Your task to perform on an android device: change the upload size in google photos Image 0: 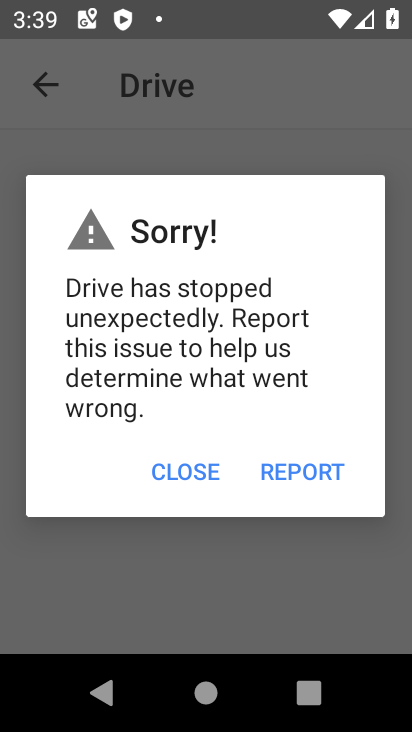
Step 0: press home button
Your task to perform on an android device: change the upload size in google photos Image 1: 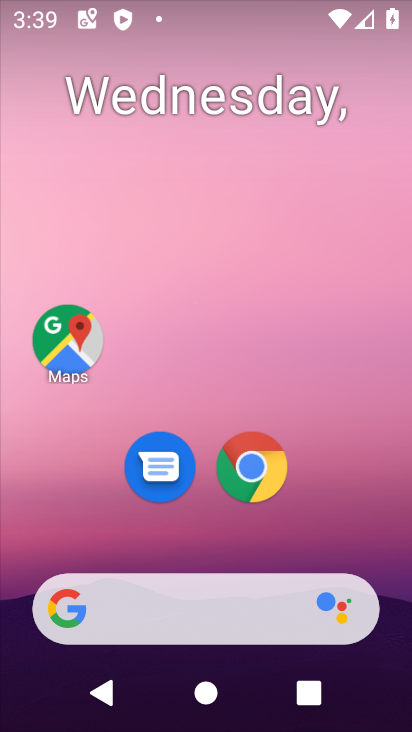
Step 1: drag from (393, 598) to (299, 115)
Your task to perform on an android device: change the upload size in google photos Image 2: 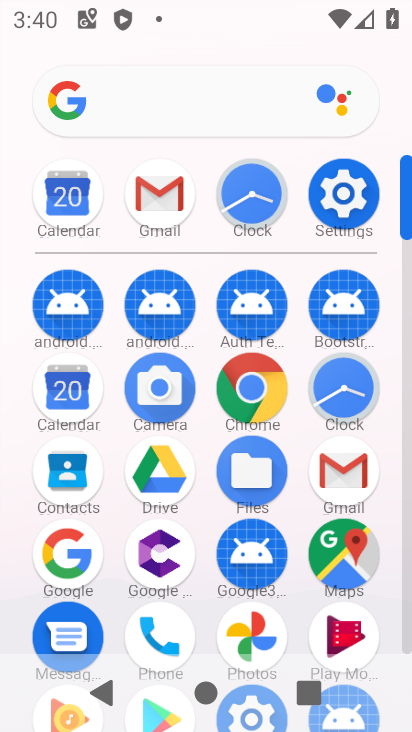
Step 2: click (405, 633)
Your task to perform on an android device: change the upload size in google photos Image 3: 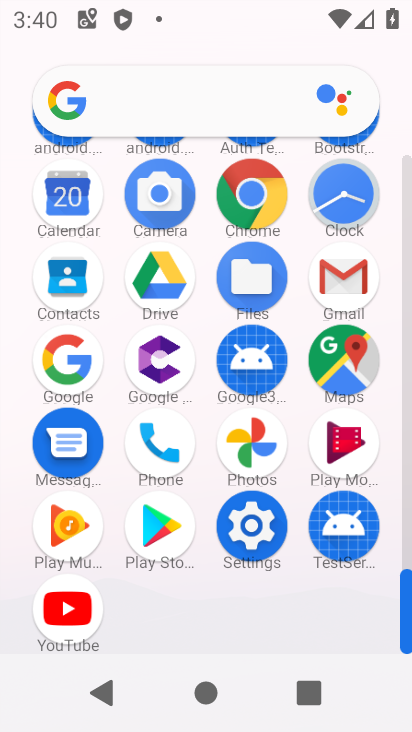
Step 3: click (252, 443)
Your task to perform on an android device: change the upload size in google photos Image 4: 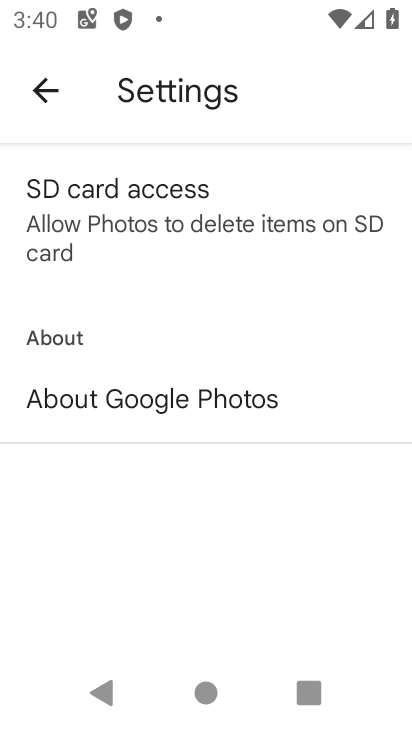
Step 4: press back button
Your task to perform on an android device: change the upload size in google photos Image 5: 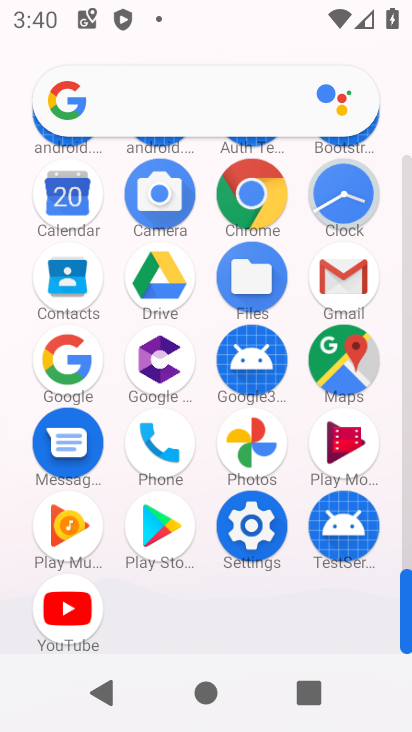
Step 5: click (249, 442)
Your task to perform on an android device: change the upload size in google photos Image 6: 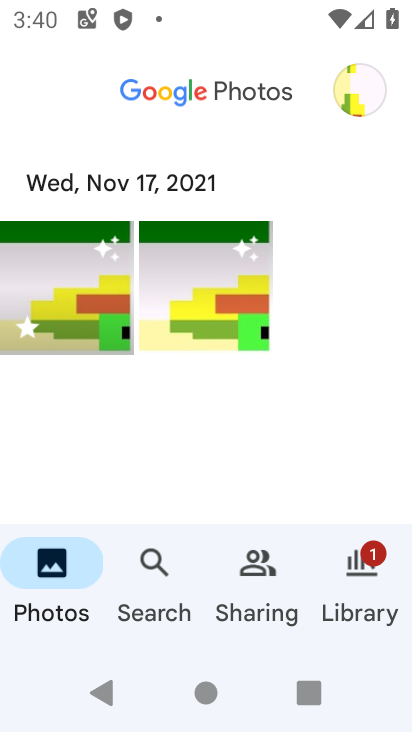
Step 6: click (360, 99)
Your task to perform on an android device: change the upload size in google photos Image 7: 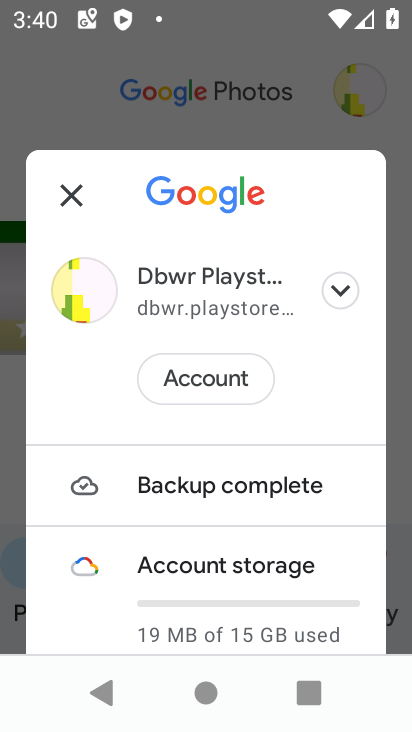
Step 7: drag from (219, 496) to (243, 237)
Your task to perform on an android device: change the upload size in google photos Image 8: 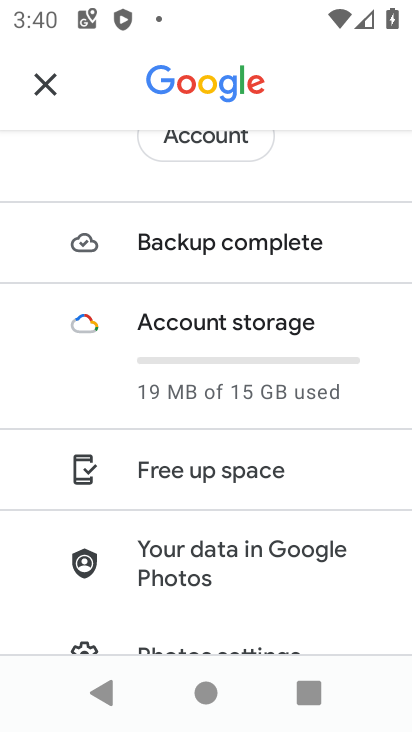
Step 8: drag from (216, 565) to (259, 220)
Your task to perform on an android device: change the upload size in google photos Image 9: 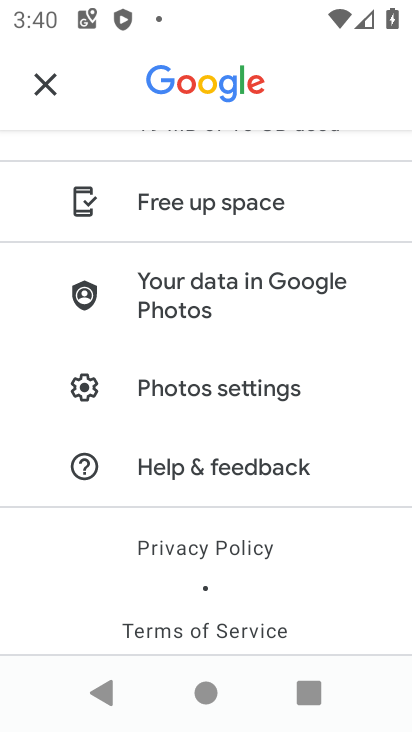
Step 9: click (186, 396)
Your task to perform on an android device: change the upload size in google photos Image 10: 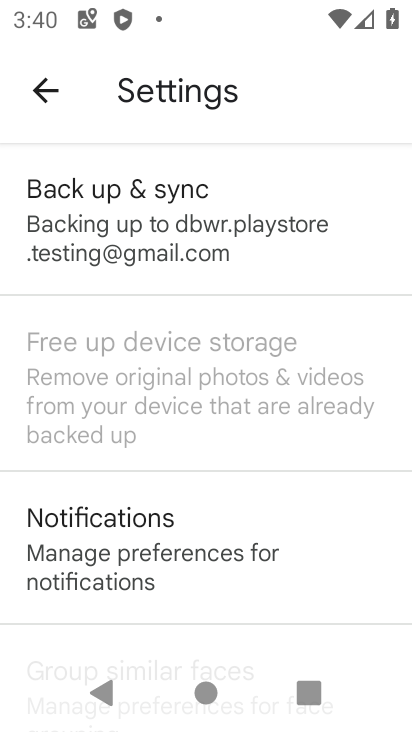
Step 10: click (141, 207)
Your task to perform on an android device: change the upload size in google photos Image 11: 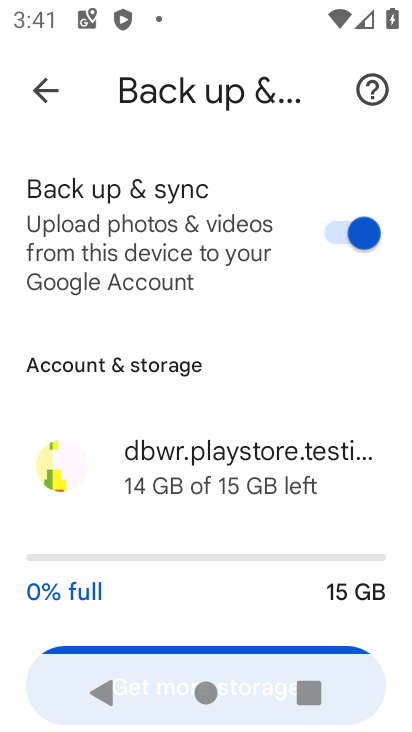
Step 11: drag from (206, 601) to (192, 285)
Your task to perform on an android device: change the upload size in google photos Image 12: 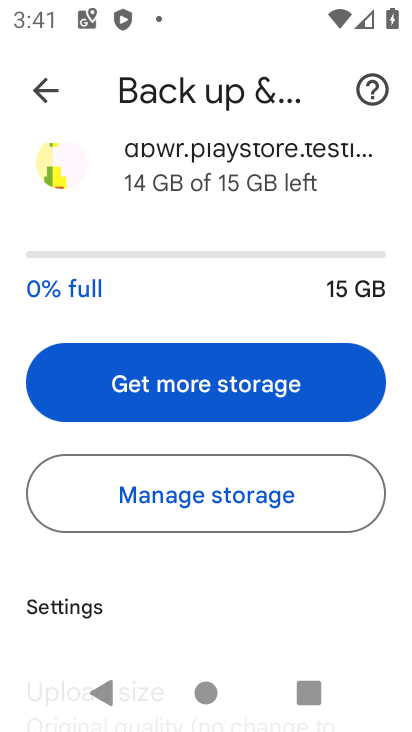
Step 12: drag from (226, 579) to (232, 280)
Your task to perform on an android device: change the upload size in google photos Image 13: 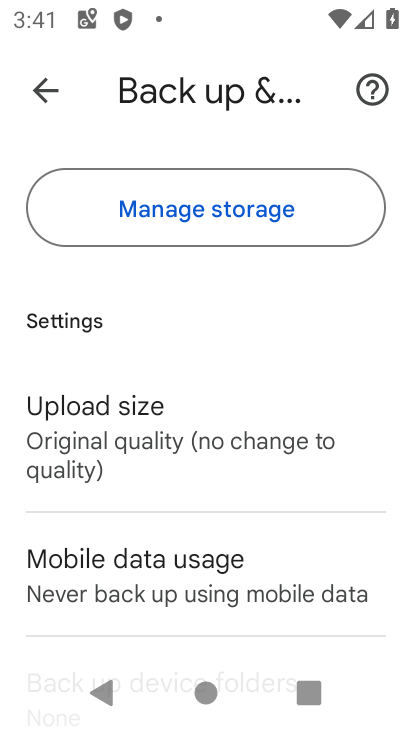
Step 13: click (131, 441)
Your task to perform on an android device: change the upload size in google photos Image 14: 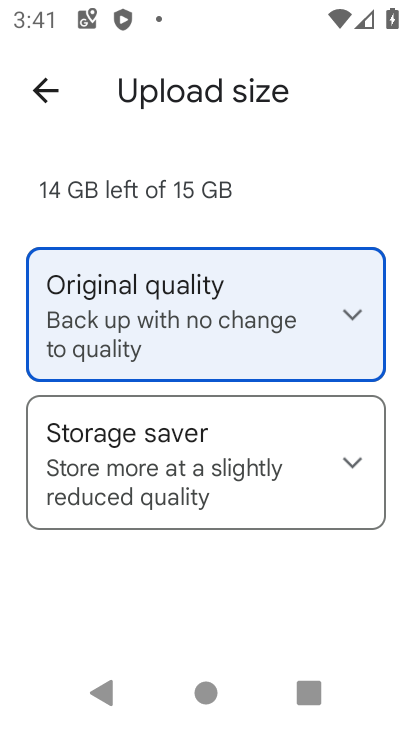
Step 14: click (133, 472)
Your task to perform on an android device: change the upload size in google photos Image 15: 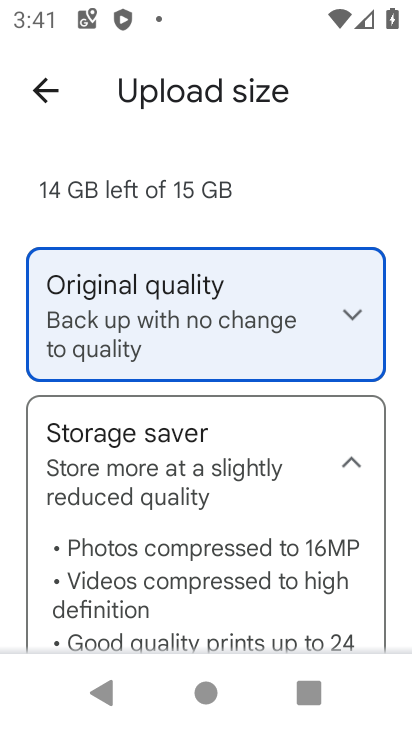
Step 15: drag from (156, 583) to (176, 305)
Your task to perform on an android device: change the upload size in google photos Image 16: 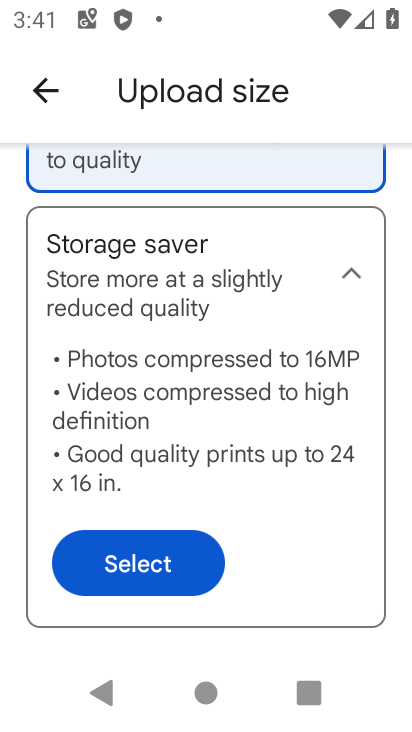
Step 16: click (145, 568)
Your task to perform on an android device: change the upload size in google photos Image 17: 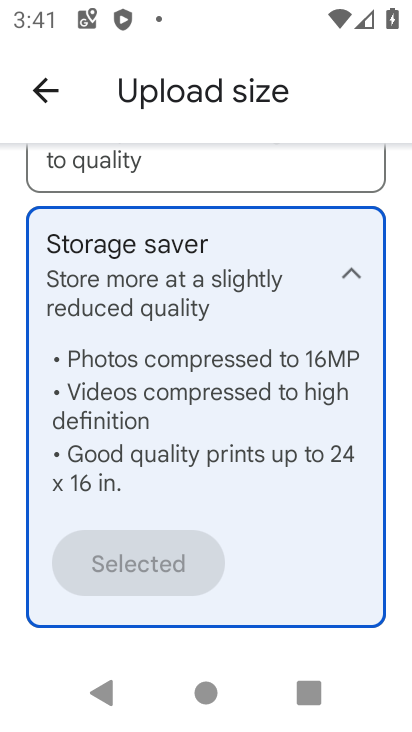
Step 17: task complete